Your task to perform on an android device: Open Google Chrome Image 0: 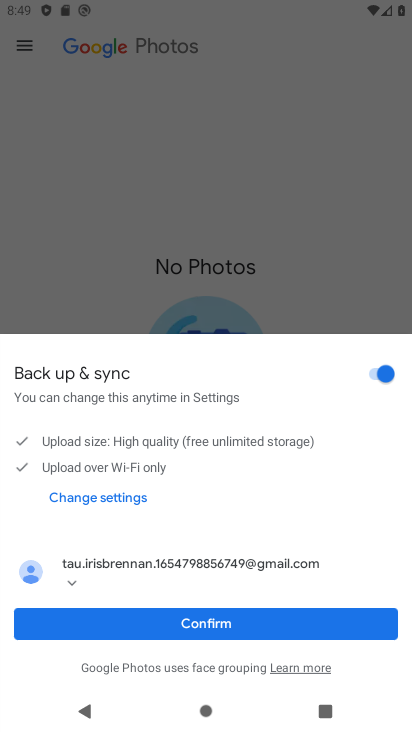
Step 0: press home button
Your task to perform on an android device: Open Google Chrome Image 1: 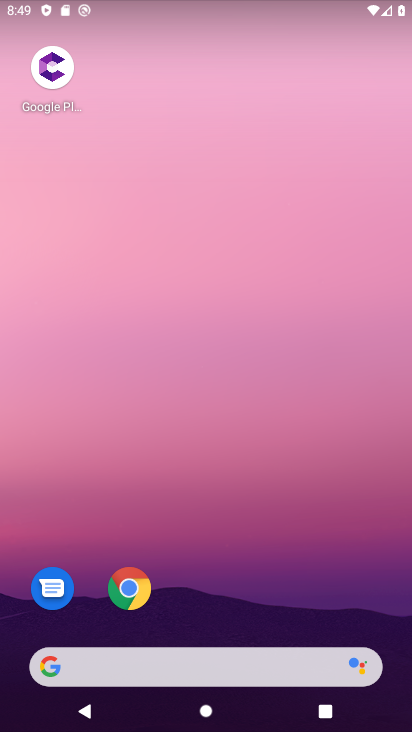
Step 1: click (130, 571)
Your task to perform on an android device: Open Google Chrome Image 2: 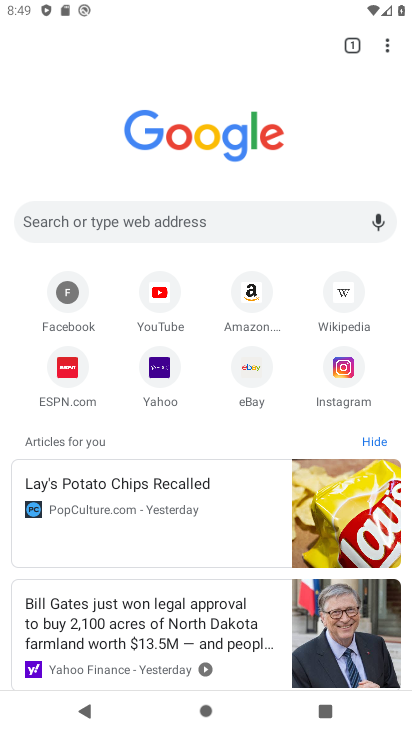
Step 2: task complete